Your task to perform on an android device: open app "Spotify: Music and Podcasts" (install if not already installed) and go to login screen Image 0: 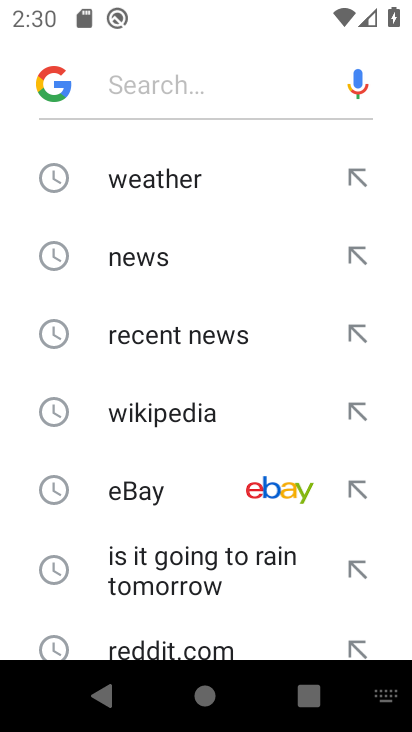
Step 0: press home button
Your task to perform on an android device: open app "Spotify: Music and Podcasts" (install if not already installed) and go to login screen Image 1: 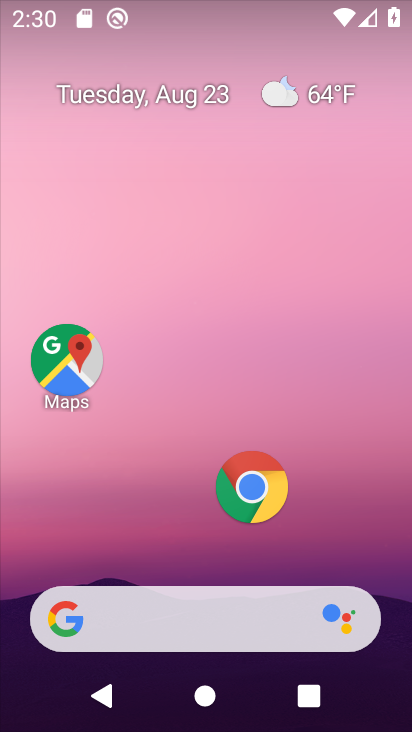
Step 1: drag from (137, 595) to (154, 139)
Your task to perform on an android device: open app "Spotify: Music and Podcasts" (install if not already installed) and go to login screen Image 2: 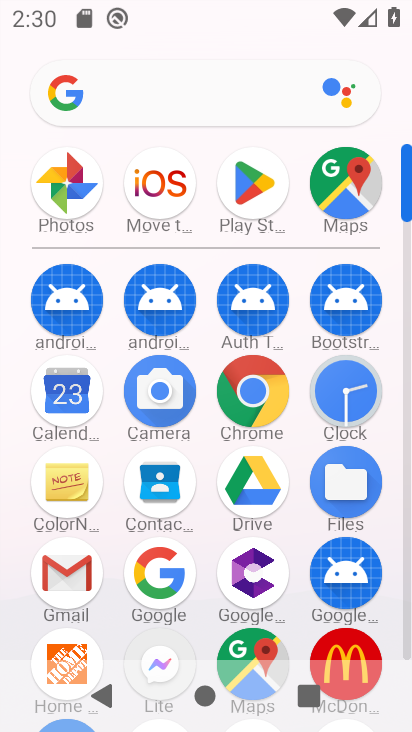
Step 2: click (230, 179)
Your task to perform on an android device: open app "Spotify: Music and Podcasts" (install if not already installed) and go to login screen Image 3: 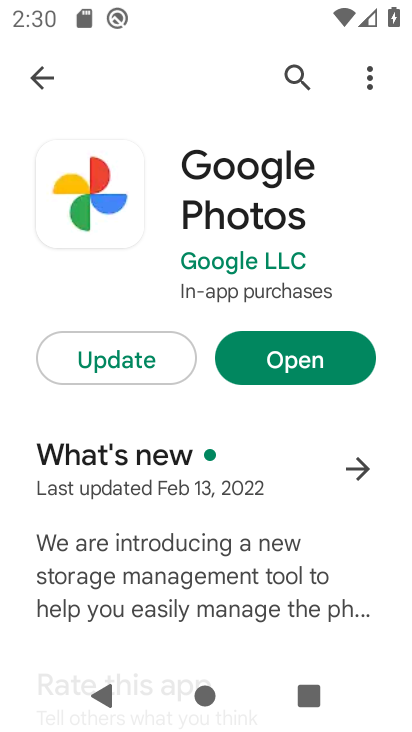
Step 3: click (29, 65)
Your task to perform on an android device: open app "Spotify: Music and Podcasts" (install if not already installed) and go to login screen Image 4: 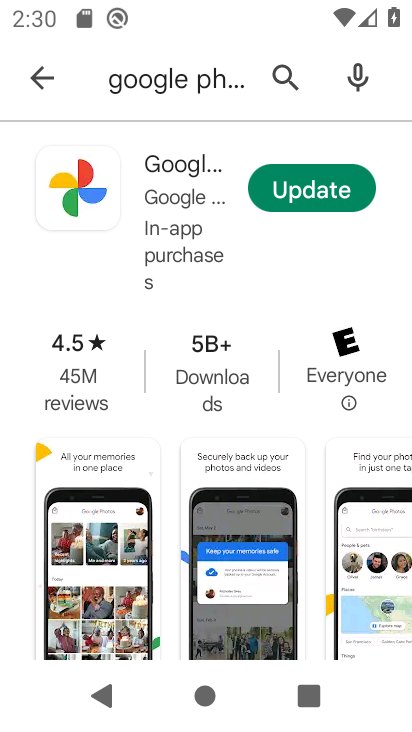
Step 4: click (54, 73)
Your task to perform on an android device: open app "Spotify: Music and Podcasts" (install if not already installed) and go to login screen Image 5: 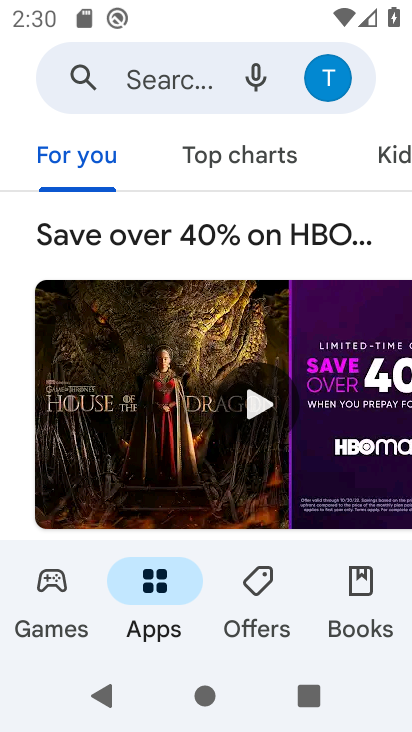
Step 5: click (199, 82)
Your task to perform on an android device: open app "Spotify: Music and Podcasts" (install if not already installed) and go to login screen Image 6: 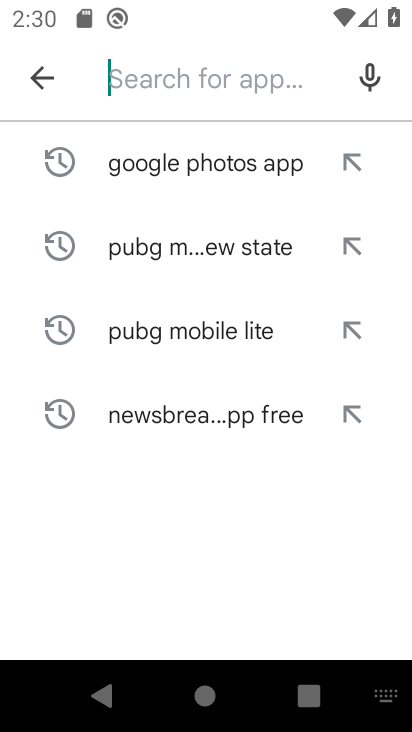
Step 6: type "Spotify: Music and Podcast "
Your task to perform on an android device: open app "Spotify: Music and Podcasts" (install if not already installed) and go to login screen Image 7: 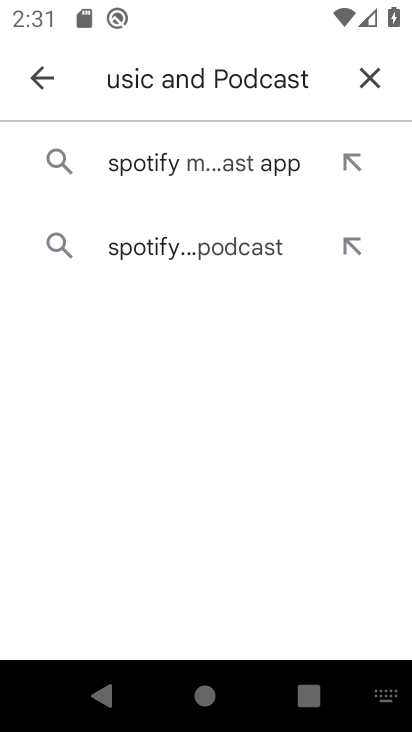
Step 7: click (197, 183)
Your task to perform on an android device: open app "Spotify: Music and Podcasts" (install if not already installed) and go to login screen Image 8: 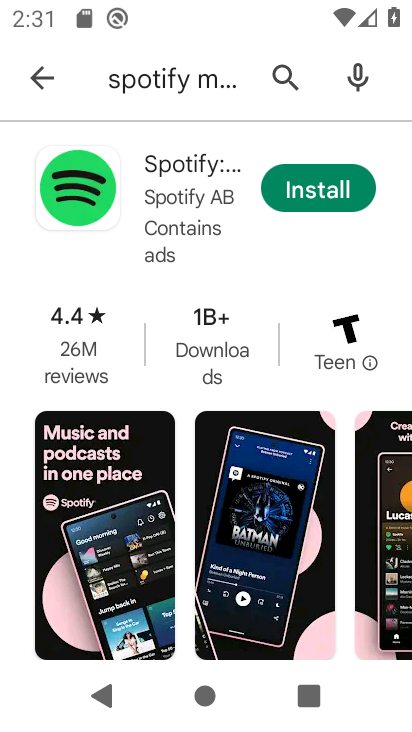
Step 8: click (323, 187)
Your task to perform on an android device: open app "Spotify: Music and Podcasts" (install if not already installed) and go to login screen Image 9: 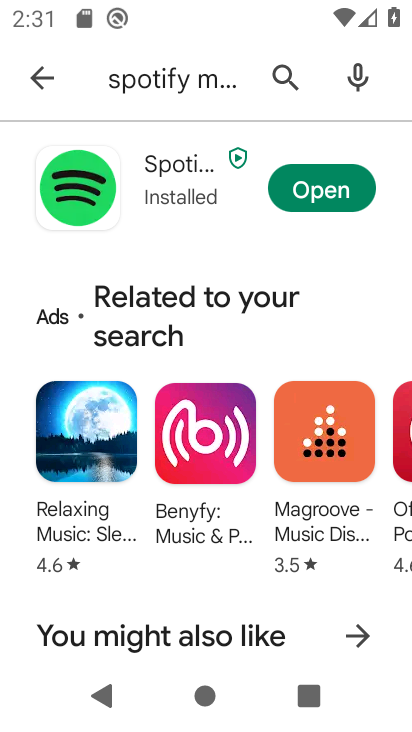
Step 9: click (323, 187)
Your task to perform on an android device: open app "Spotify: Music and Podcasts" (install if not already installed) and go to login screen Image 10: 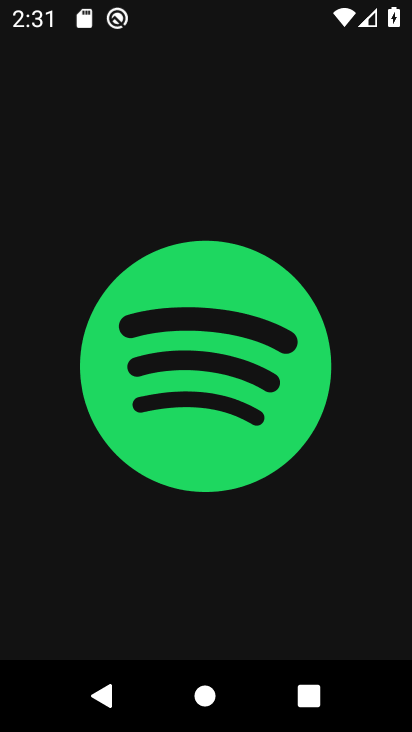
Step 10: task complete